Your task to perform on an android device: Open Yahoo.com Image 0: 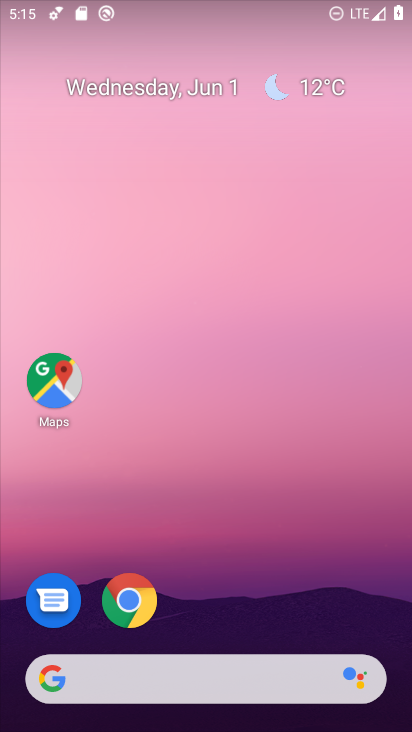
Step 0: click (126, 596)
Your task to perform on an android device: Open Yahoo.com Image 1: 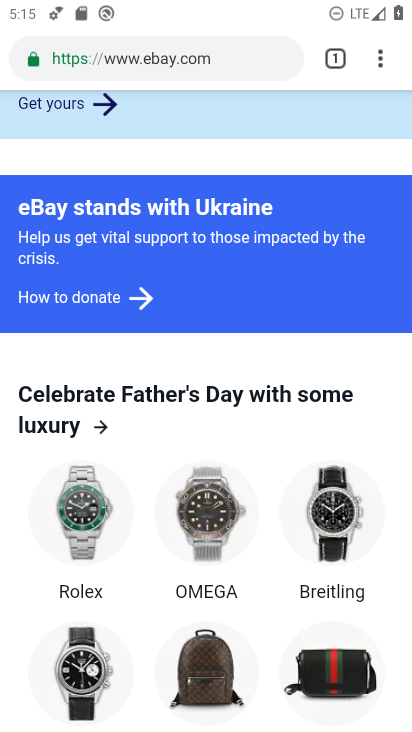
Step 1: click (248, 48)
Your task to perform on an android device: Open Yahoo.com Image 2: 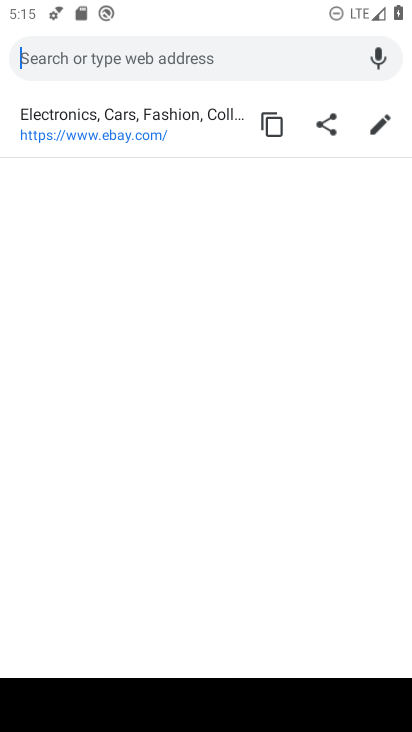
Step 2: type "yahoo.com"
Your task to perform on an android device: Open Yahoo.com Image 3: 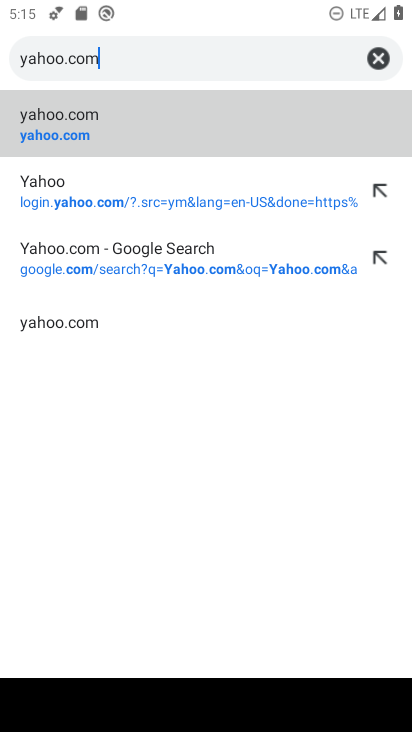
Step 3: click (77, 121)
Your task to perform on an android device: Open Yahoo.com Image 4: 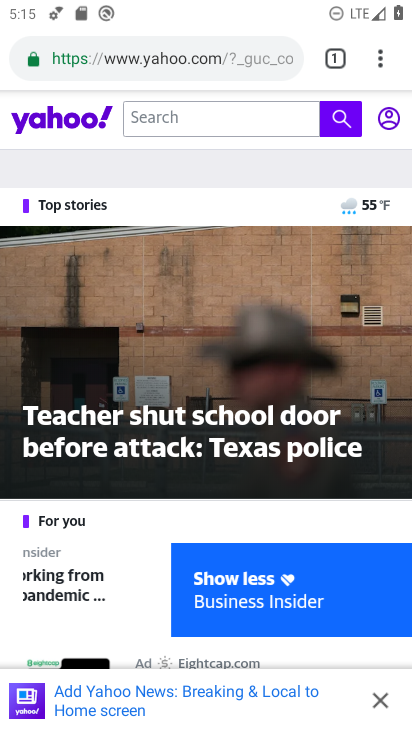
Step 4: task complete